Your task to perform on an android device: Open display settings Image 0: 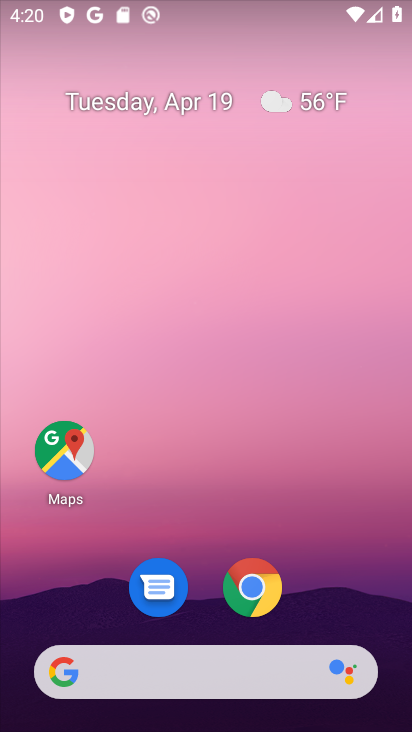
Step 0: drag from (200, 725) to (202, 47)
Your task to perform on an android device: Open display settings Image 1: 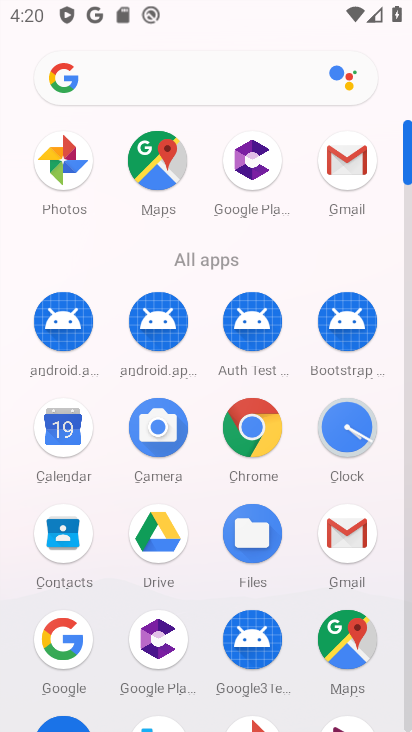
Step 1: drag from (204, 590) to (206, 243)
Your task to perform on an android device: Open display settings Image 2: 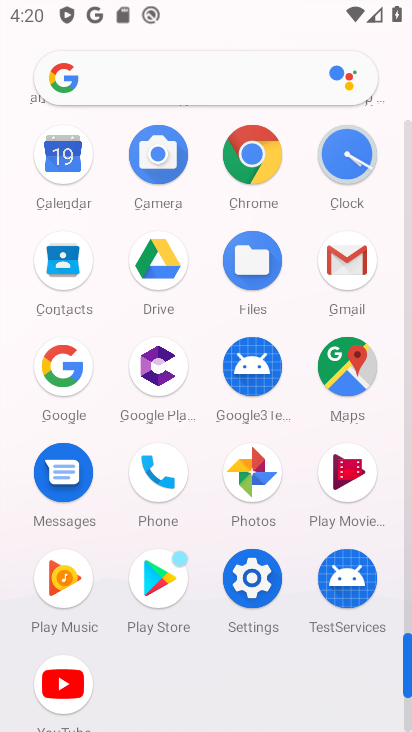
Step 2: click (249, 583)
Your task to perform on an android device: Open display settings Image 3: 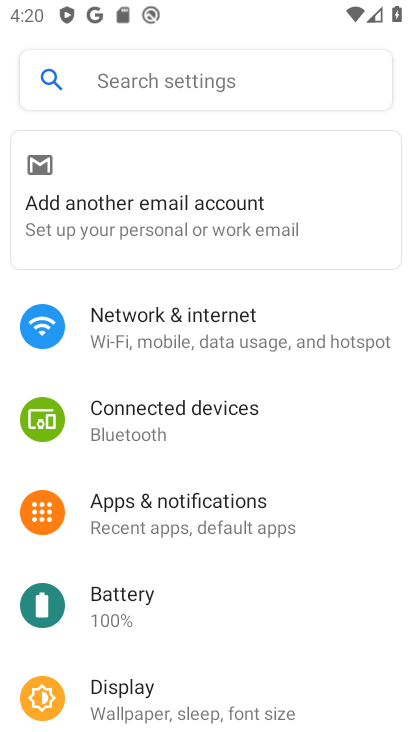
Step 3: click (118, 689)
Your task to perform on an android device: Open display settings Image 4: 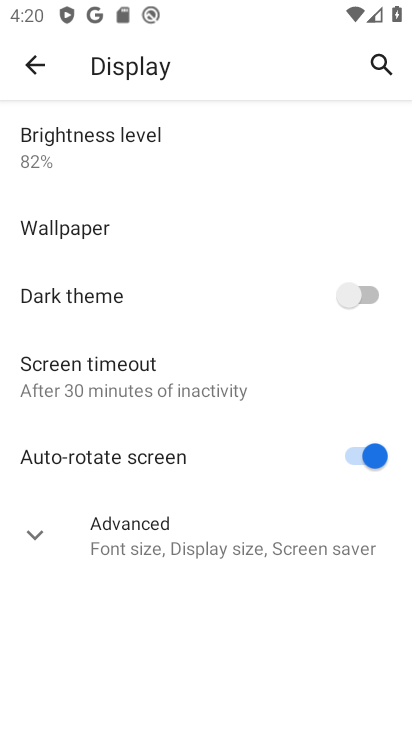
Step 4: task complete